Your task to perform on an android device: turn on bluetooth scan Image 0: 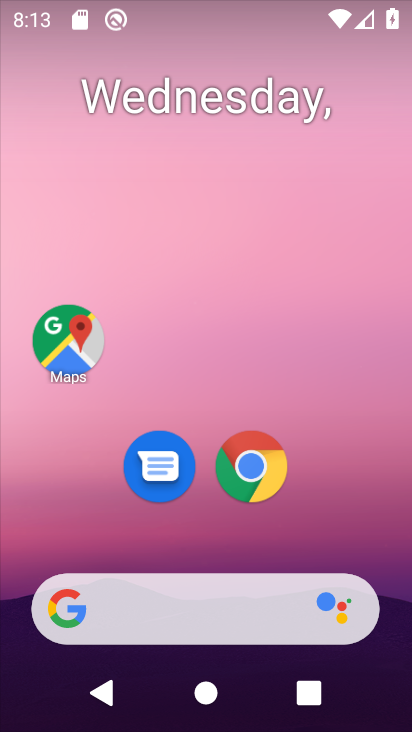
Step 0: drag from (254, 398) to (254, 50)
Your task to perform on an android device: turn on bluetooth scan Image 1: 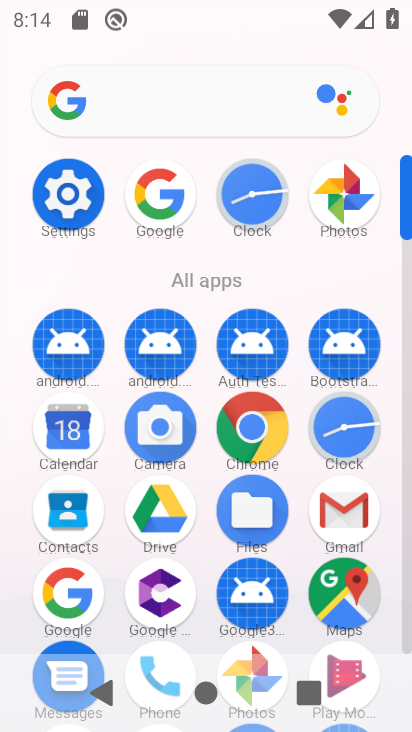
Step 1: click (71, 205)
Your task to perform on an android device: turn on bluetooth scan Image 2: 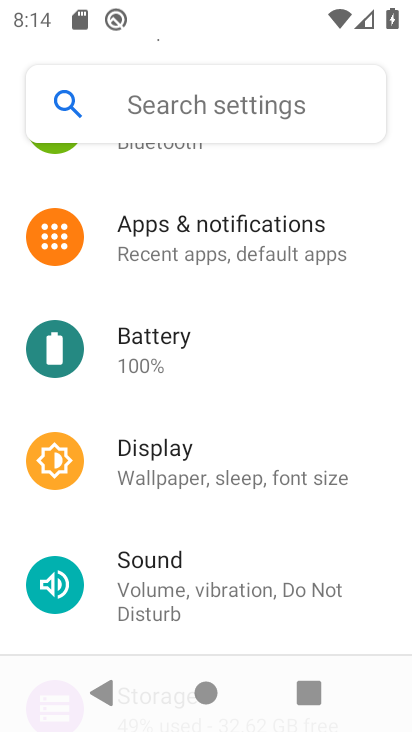
Step 2: drag from (240, 249) to (235, 573)
Your task to perform on an android device: turn on bluetooth scan Image 3: 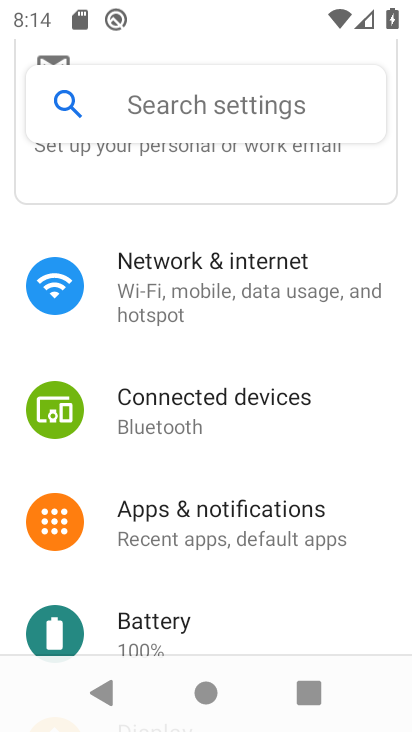
Step 3: drag from (230, 525) to (215, 169)
Your task to perform on an android device: turn on bluetooth scan Image 4: 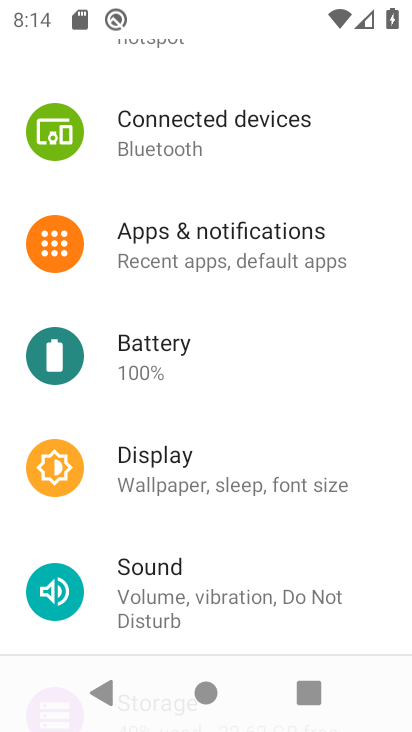
Step 4: drag from (229, 586) to (217, 304)
Your task to perform on an android device: turn on bluetooth scan Image 5: 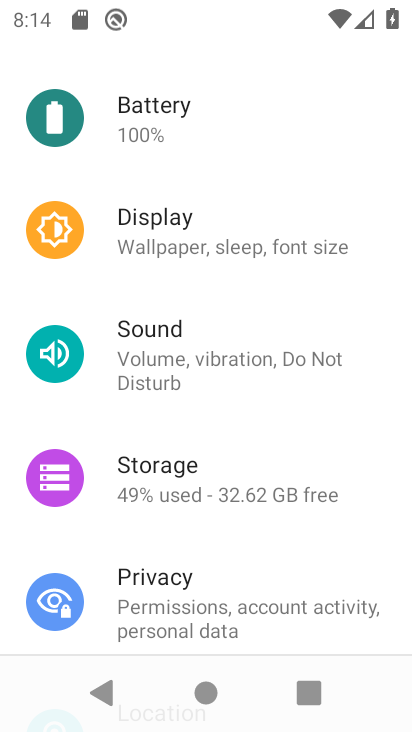
Step 5: drag from (168, 580) to (173, 252)
Your task to perform on an android device: turn on bluetooth scan Image 6: 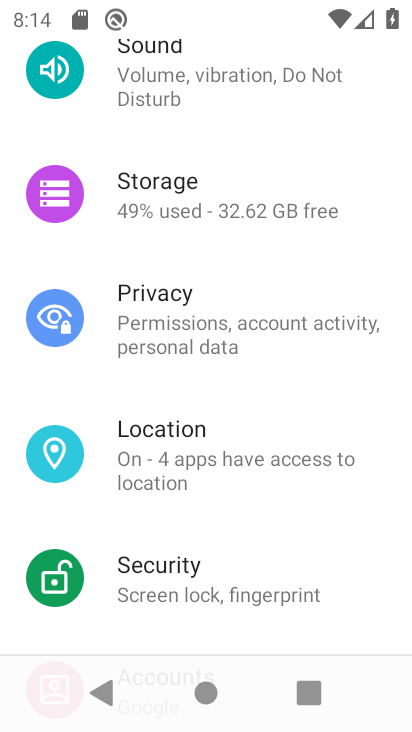
Step 6: click (149, 446)
Your task to perform on an android device: turn on bluetooth scan Image 7: 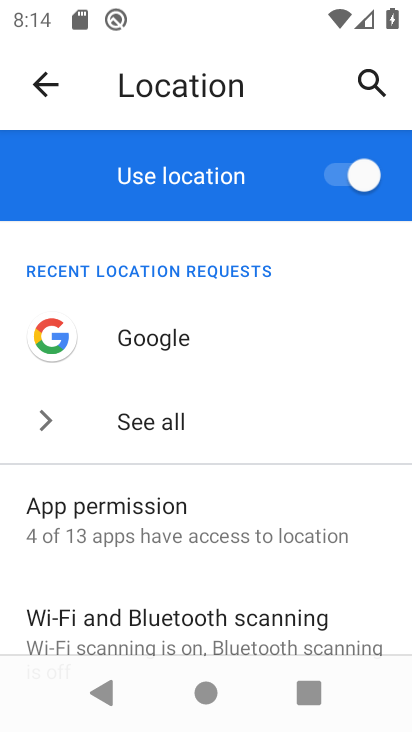
Step 7: drag from (133, 606) to (140, 353)
Your task to perform on an android device: turn on bluetooth scan Image 8: 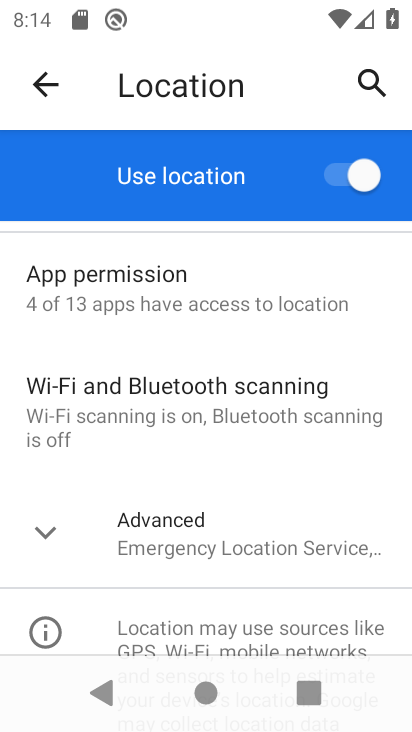
Step 8: click (152, 402)
Your task to perform on an android device: turn on bluetooth scan Image 9: 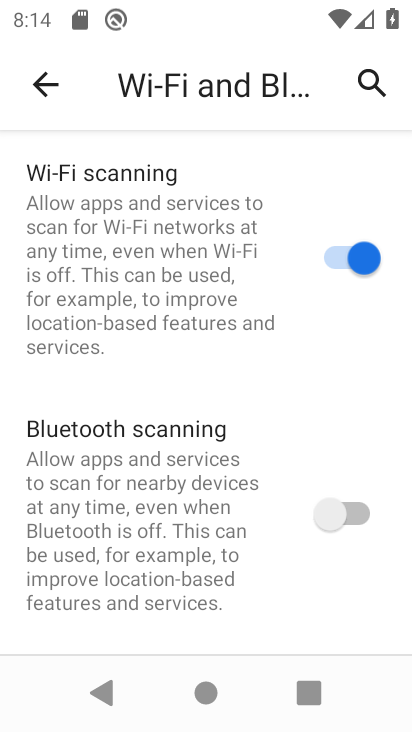
Step 9: click (370, 512)
Your task to perform on an android device: turn on bluetooth scan Image 10: 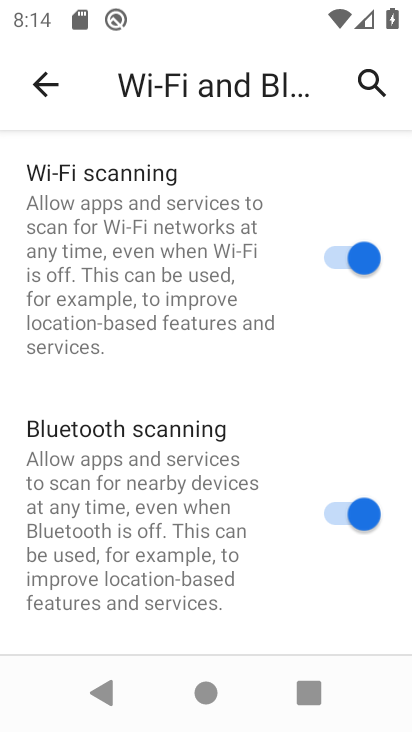
Step 10: task complete